Your task to perform on an android device: open app "Google Chrome" (install if not already installed) Image 0: 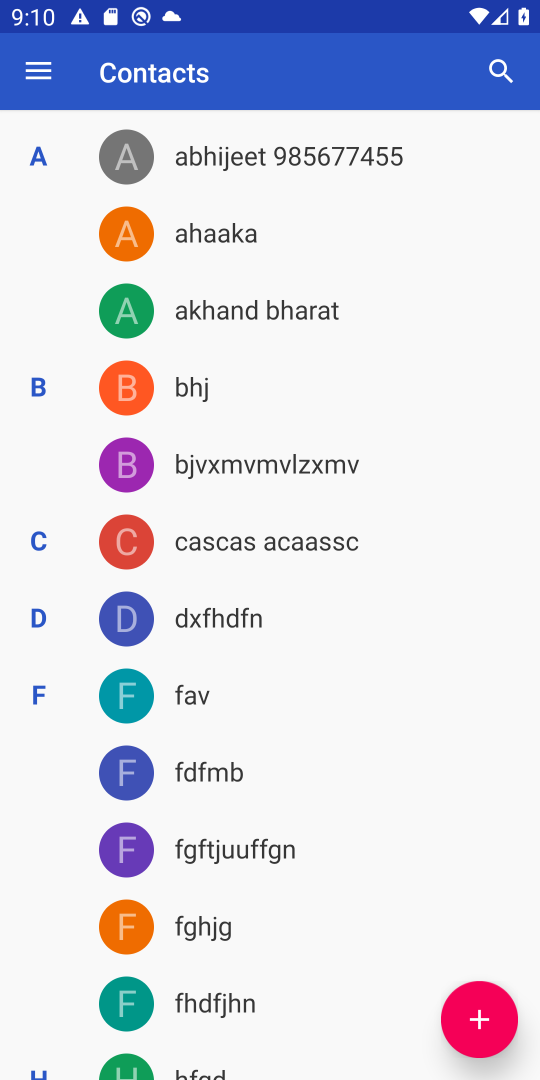
Step 0: press home button
Your task to perform on an android device: open app "Google Chrome" (install if not already installed) Image 1: 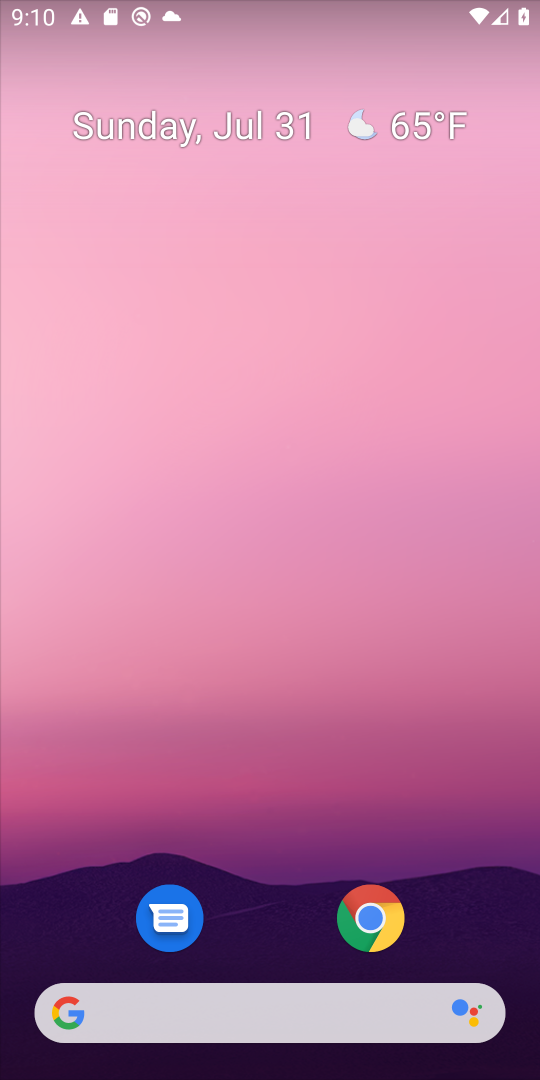
Step 1: click (372, 909)
Your task to perform on an android device: open app "Google Chrome" (install if not already installed) Image 2: 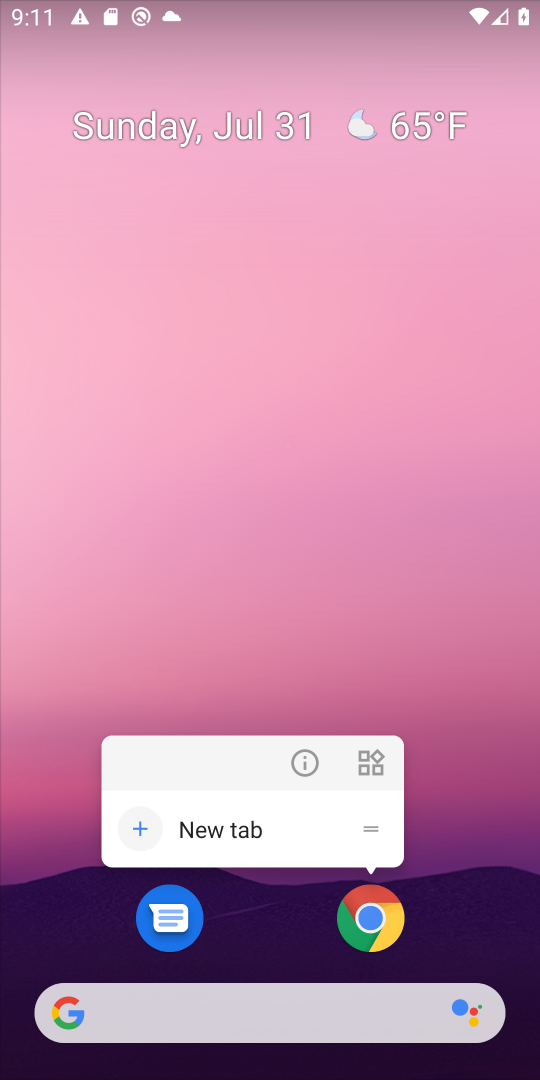
Step 2: click (332, 914)
Your task to perform on an android device: open app "Google Chrome" (install if not already installed) Image 3: 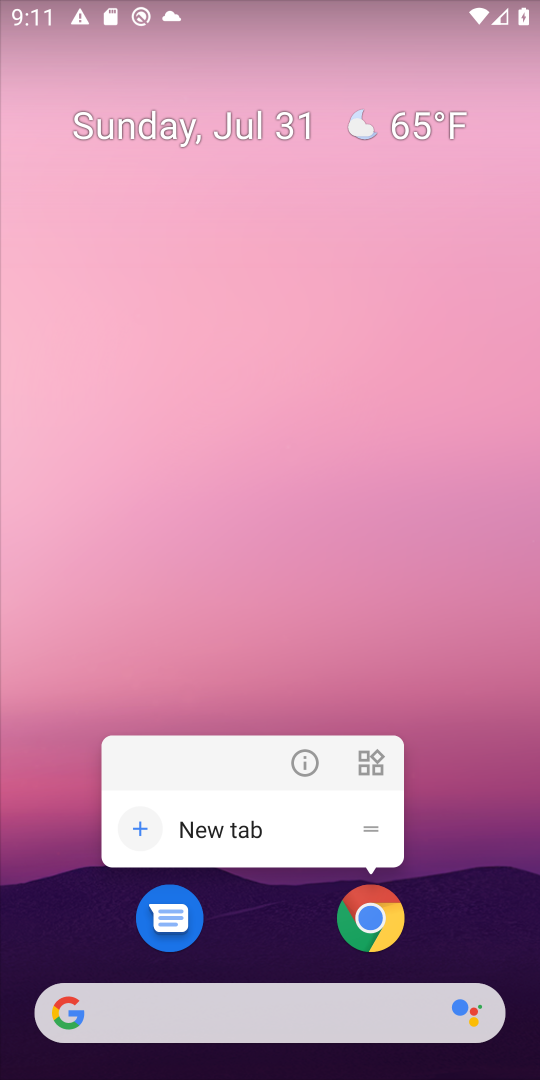
Step 3: click (377, 934)
Your task to perform on an android device: open app "Google Chrome" (install if not already installed) Image 4: 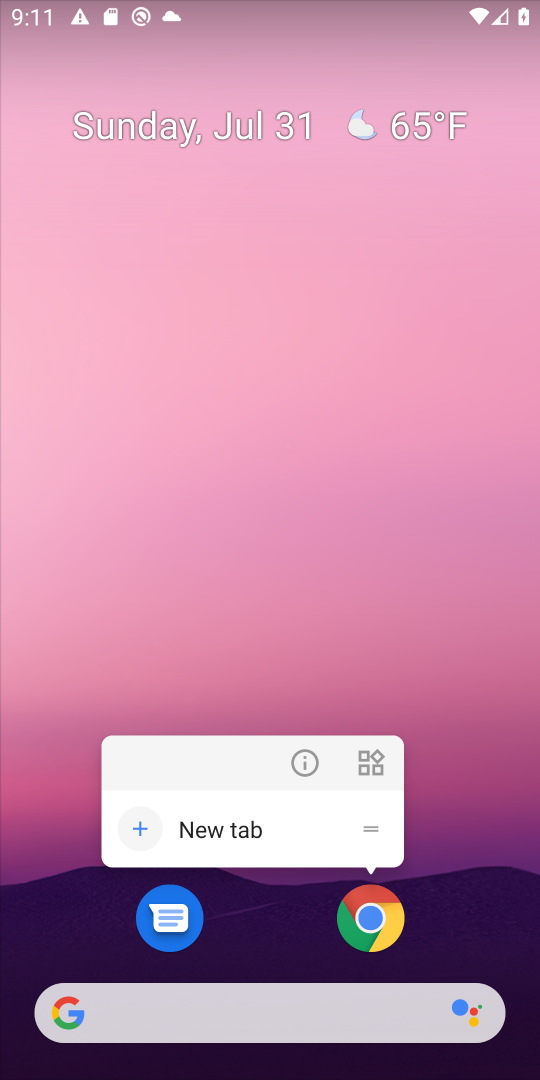
Step 4: click (377, 934)
Your task to perform on an android device: open app "Google Chrome" (install if not already installed) Image 5: 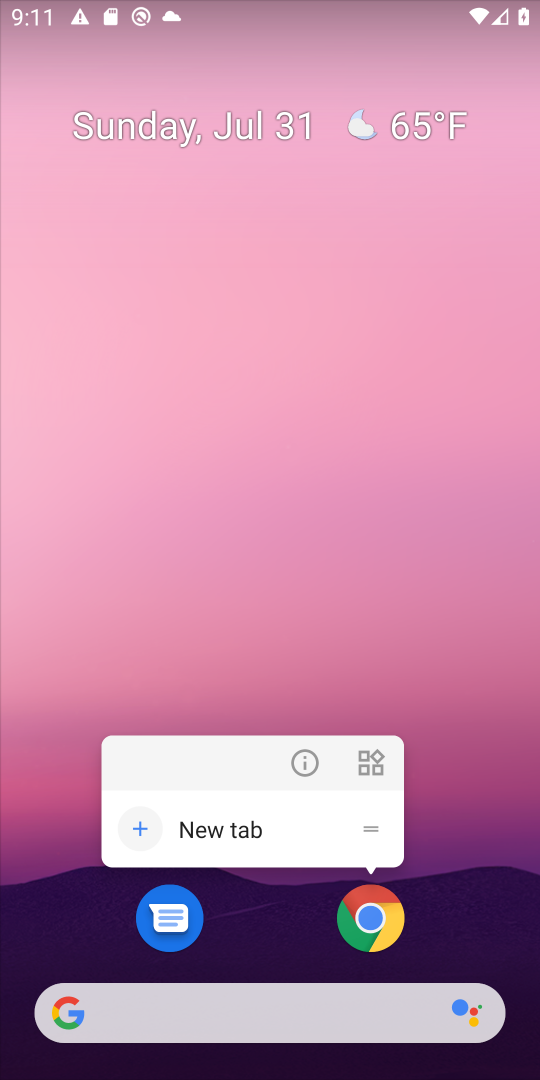
Step 5: click (377, 934)
Your task to perform on an android device: open app "Google Chrome" (install if not already installed) Image 6: 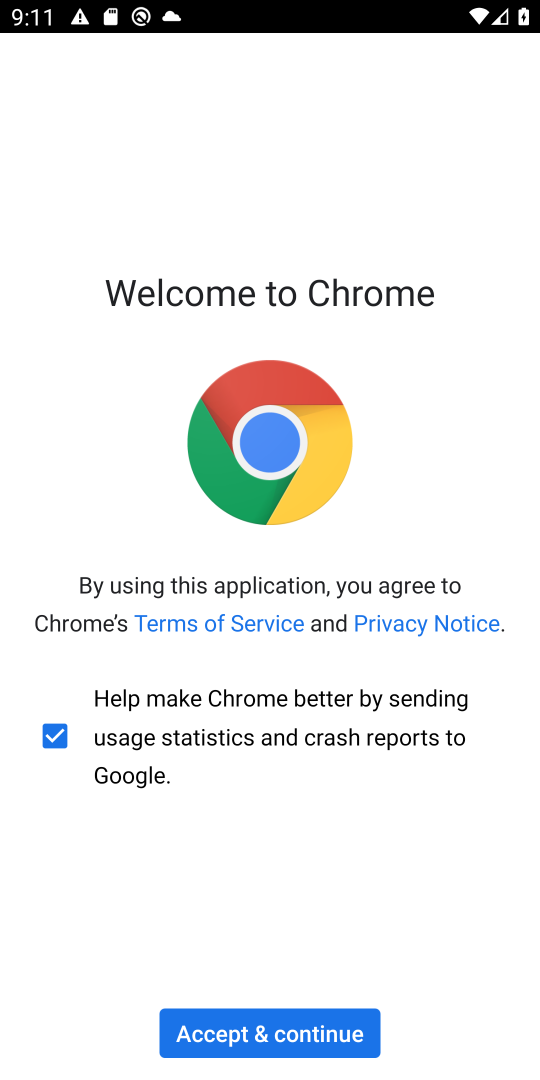
Step 6: task complete